Your task to perform on an android device: Open my contact list Image 0: 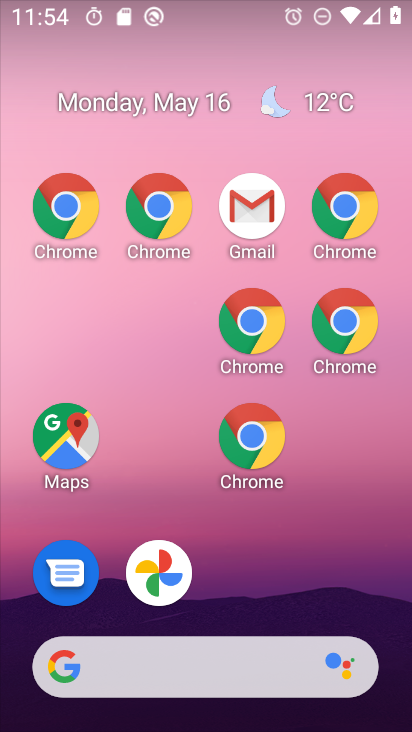
Step 0: drag from (321, 640) to (309, 176)
Your task to perform on an android device: Open my contact list Image 1: 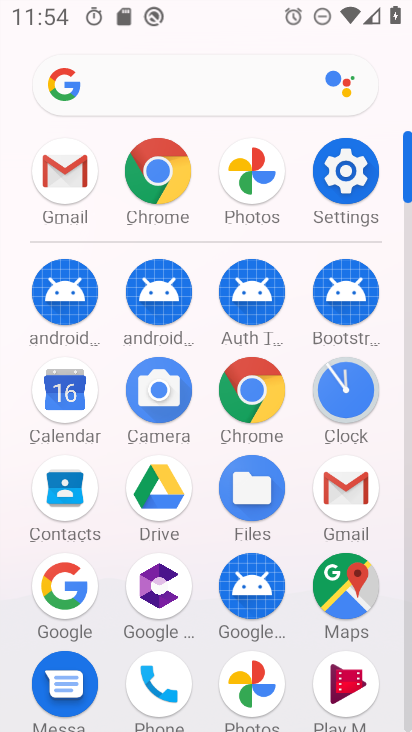
Step 1: drag from (206, 604) to (201, 191)
Your task to perform on an android device: Open my contact list Image 2: 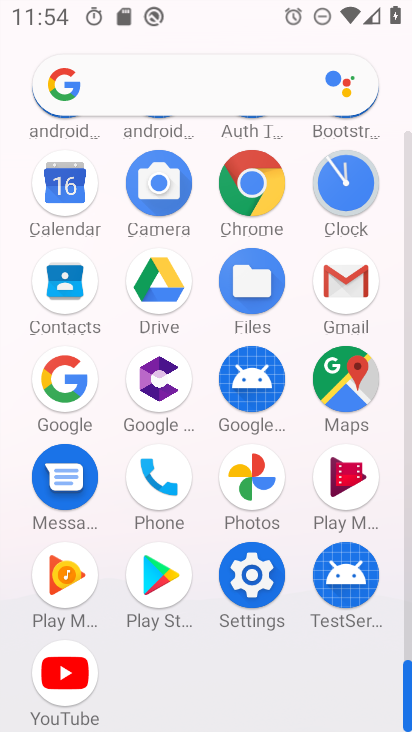
Step 2: click (67, 292)
Your task to perform on an android device: Open my contact list Image 3: 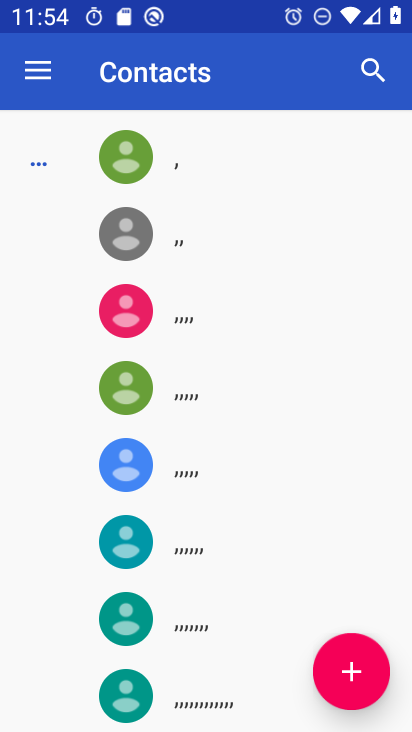
Step 3: task complete